Your task to perform on an android device: Go to privacy settings Image 0: 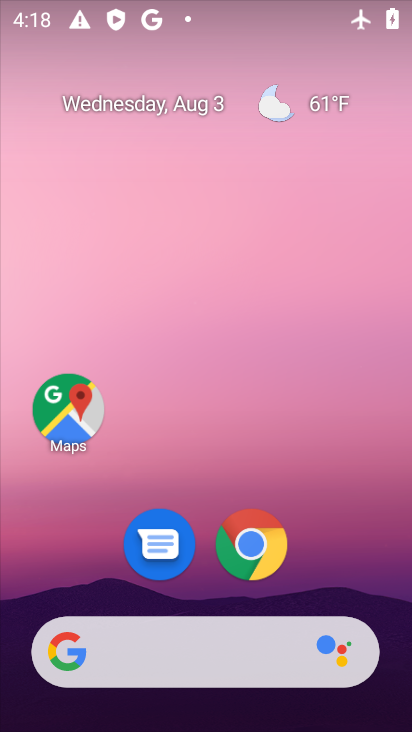
Step 0: drag from (318, 526) to (285, 45)
Your task to perform on an android device: Go to privacy settings Image 1: 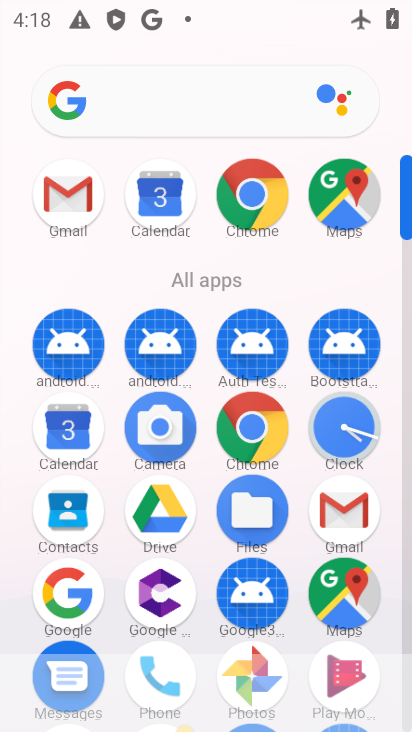
Step 1: drag from (287, 557) to (325, 214)
Your task to perform on an android device: Go to privacy settings Image 2: 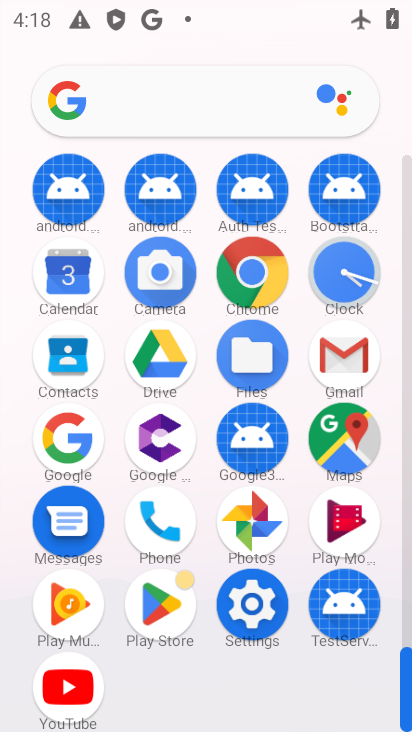
Step 2: click (258, 604)
Your task to perform on an android device: Go to privacy settings Image 3: 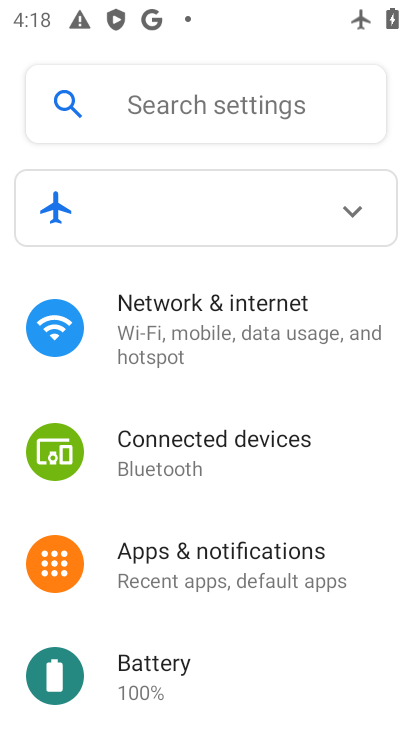
Step 3: drag from (342, 674) to (363, 339)
Your task to perform on an android device: Go to privacy settings Image 4: 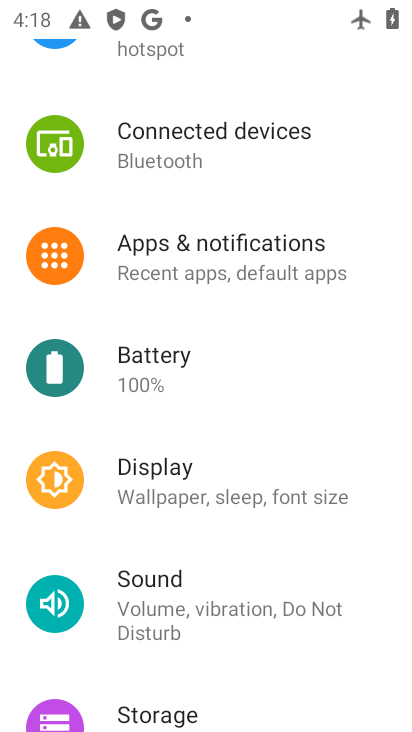
Step 4: drag from (298, 658) to (361, 341)
Your task to perform on an android device: Go to privacy settings Image 5: 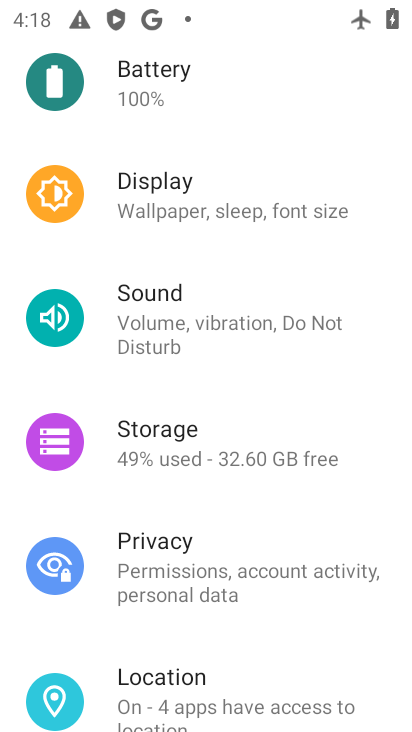
Step 5: click (205, 577)
Your task to perform on an android device: Go to privacy settings Image 6: 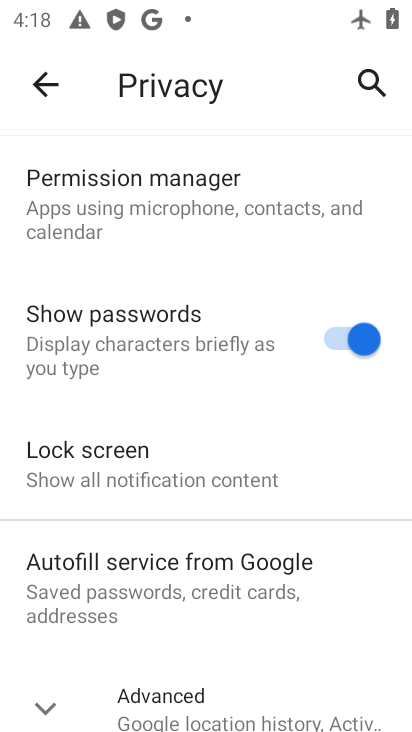
Step 6: task complete